Your task to perform on an android device: turn off improve location accuracy Image 0: 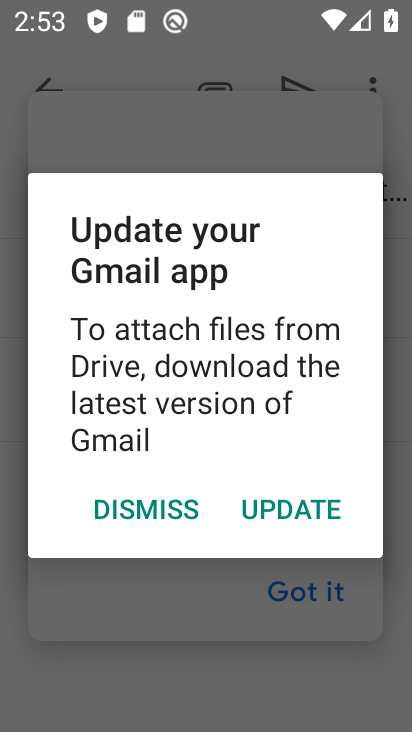
Step 0: click (143, 501)
Your task to perform on an android device: turn off improve location accuracy Image 1: 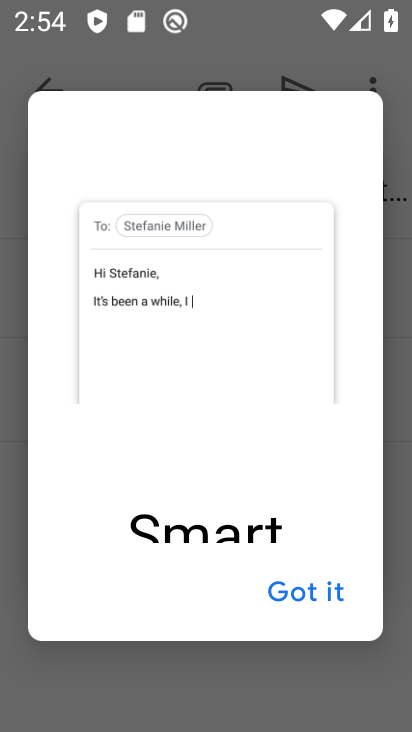
Step 1: press home button
Your task to perform on an android device: turn off improve location accuracy Image 2: 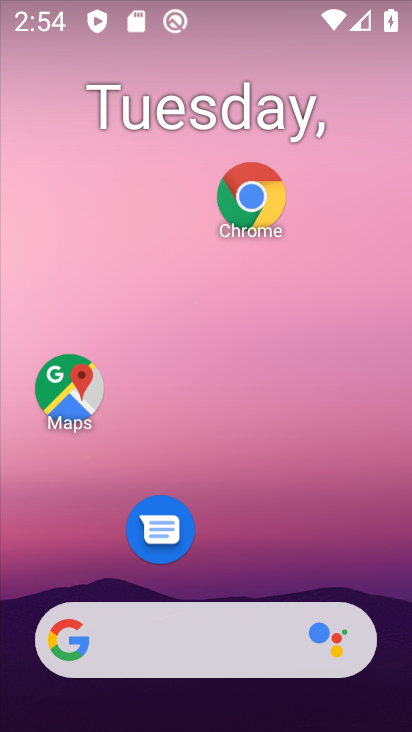
Step 2: drag from (262, 580) to (241, 164)
Your task to perform on an android device: turn off improve location accuracy Image 3: 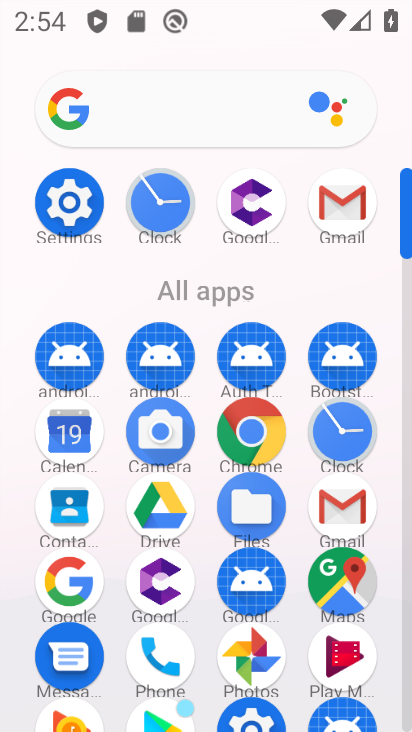
Step 3: click (63, 219)
Your task to perform on an android device: turn off improve location accuracy Image 4: 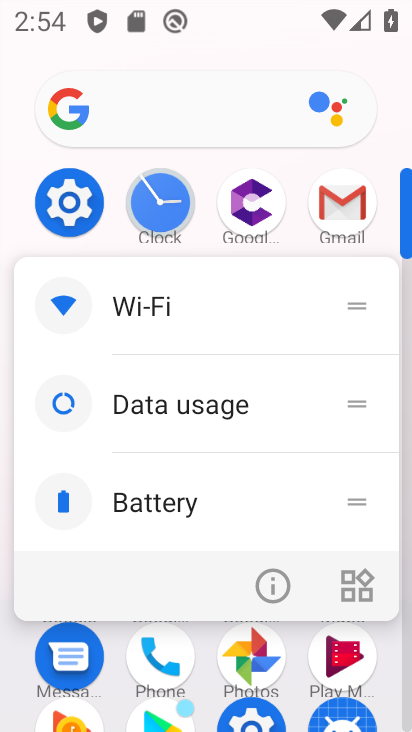
Step 4: click (65, 182)
Your task to perform on an android device: turn off improve location accuracy Image 5: 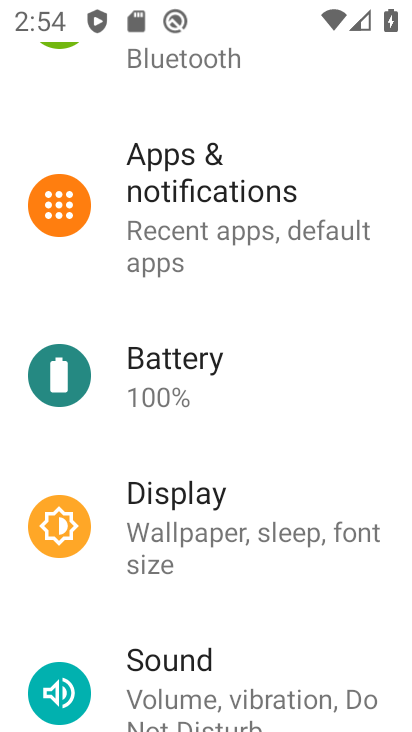
Step 5: drag from (210, 645) to (205, 292)
Your task to perform on an android device: turn off improve location accuracy Image 6: 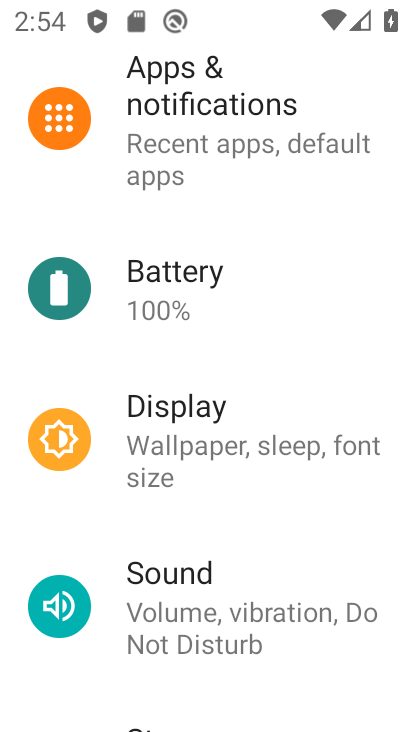
Step 6: drag from (188, 601) to (186, 210)
Your task to perform on an android device: turn off improve location accuracy Image 7: 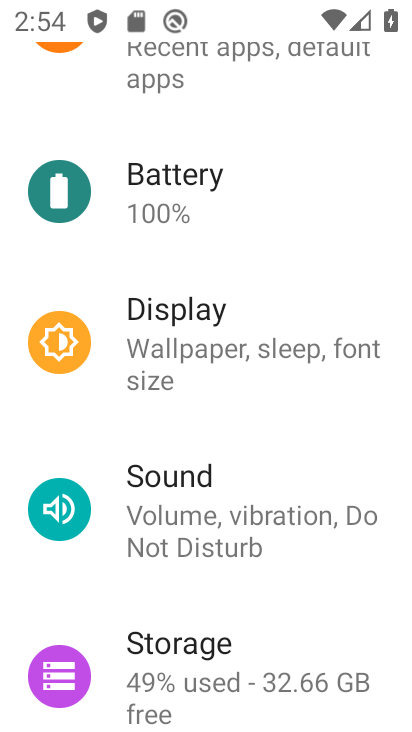
Step 7: drag from (220, 630) to (259, 194)
Your task to perform on an android device: turn off improve location accuracy Image 8: 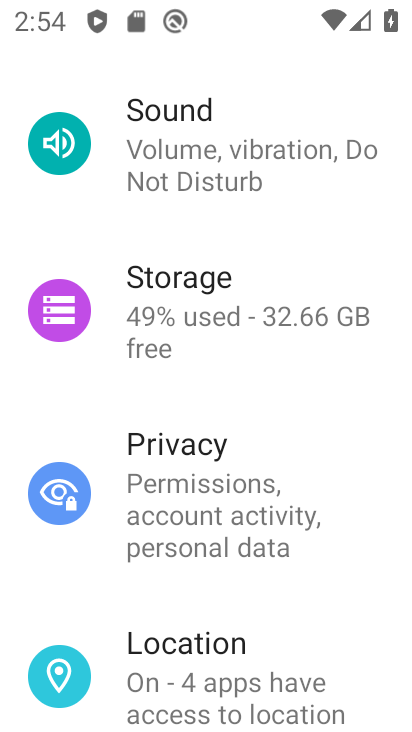
Step 8: click (216, 653)
Your task to perform on an android device: turn off improve location accuracy Image 9: 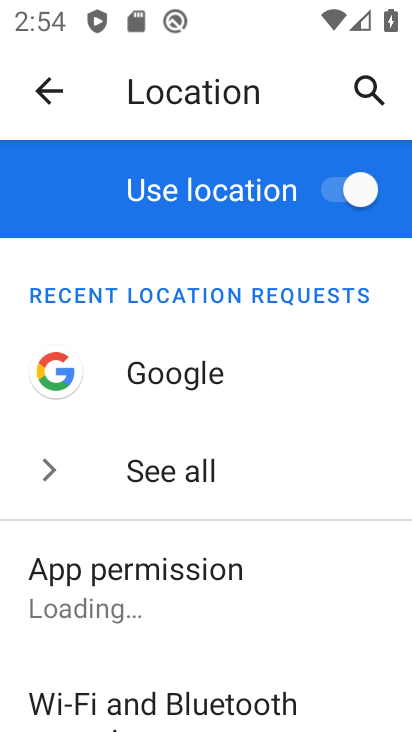
Step 9: drag from (201, 650) to (206, 301)
Your task to perform on an android device: turn off improve location accuracy Image 10: 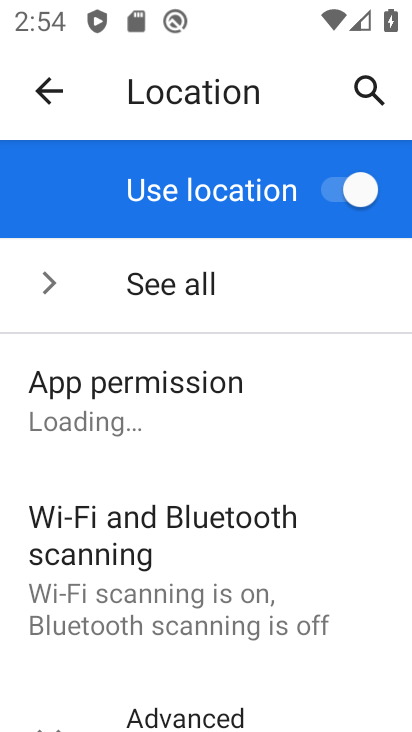
Step 10: drag from (131, 694) to (154, 313)
Your task to perform on an android device: turn off improve location accuracy Image 11: 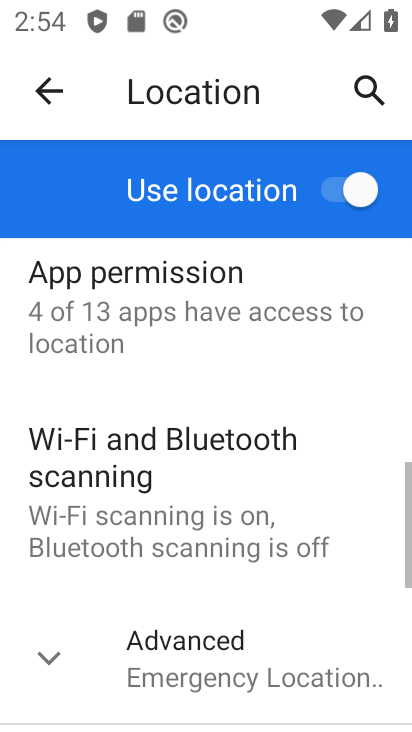
Step 11: click (185, 641)
Your task to perform on an android device: turn off improve location accuracy Image 12: 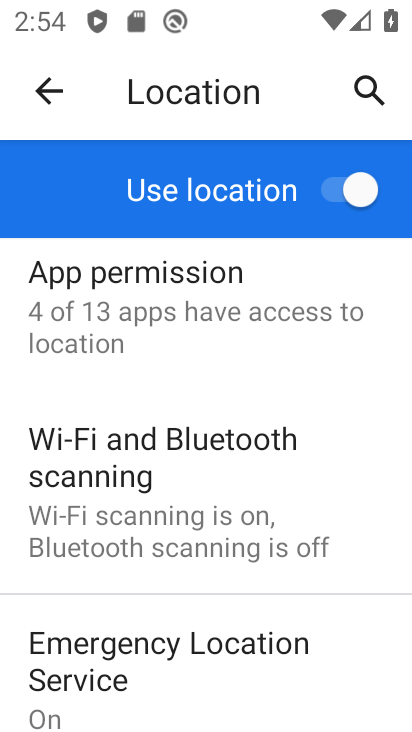
Step 12: drag from (210, 608) to (266, 212)
Your task to perform on an android device: turn off improve location accuracy Image 13: 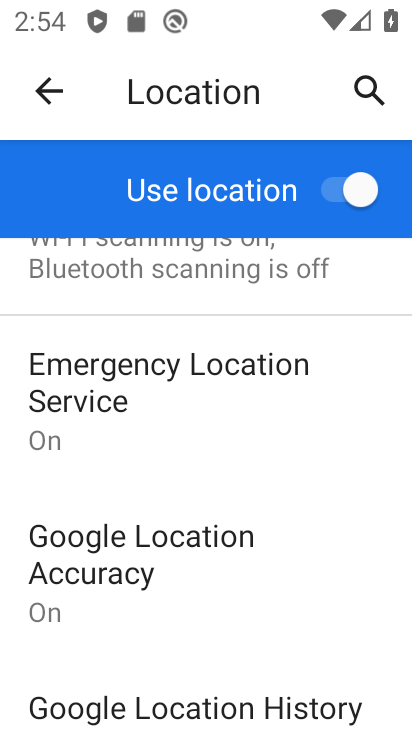
Step 13: click (113, 564)
Your task to perform on an android device: turn off improve location accuracy Image 14: 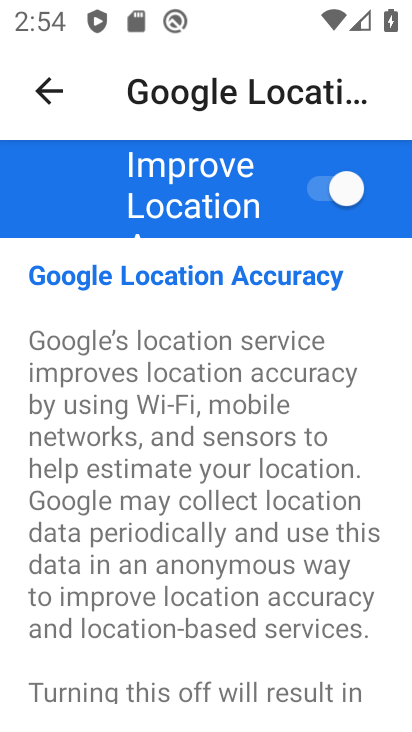
Step 14: click (323, 185)
Your task to perform on an android device: turn off improve location accuracy Image 15: 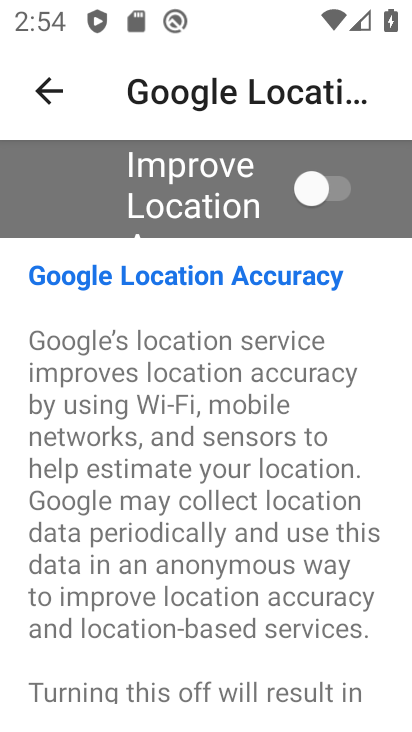
Step 15: task complete